Your task to perform on an android device: Open the map Image 0: 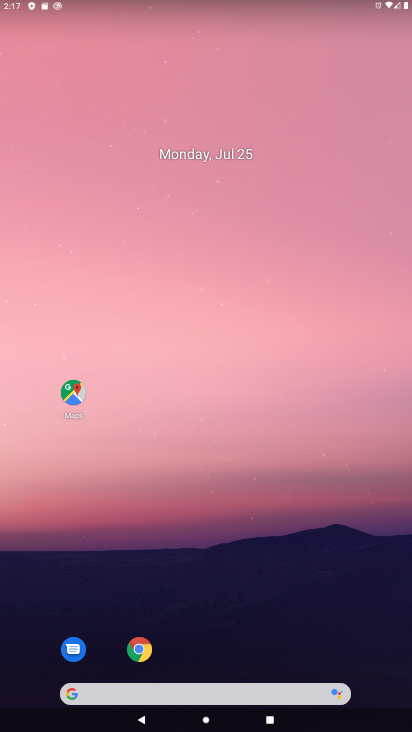
Step 0: click (73, 390)
Your task to perform on an android device: Open the map Image 1: 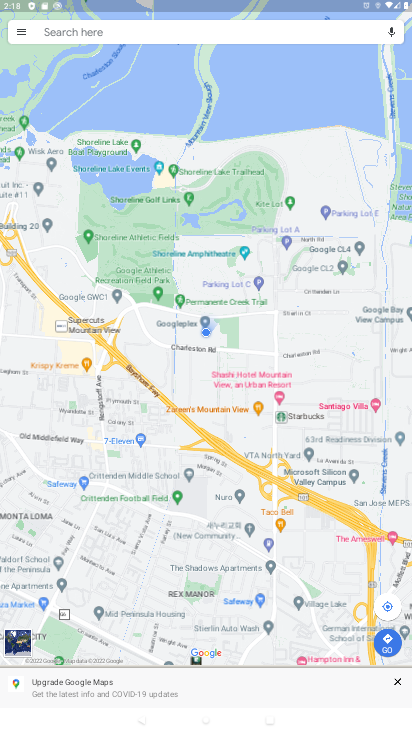
Step 1: task complete